Your task to perform on an android device: Open calendar and show me the third week of next month Image 0: 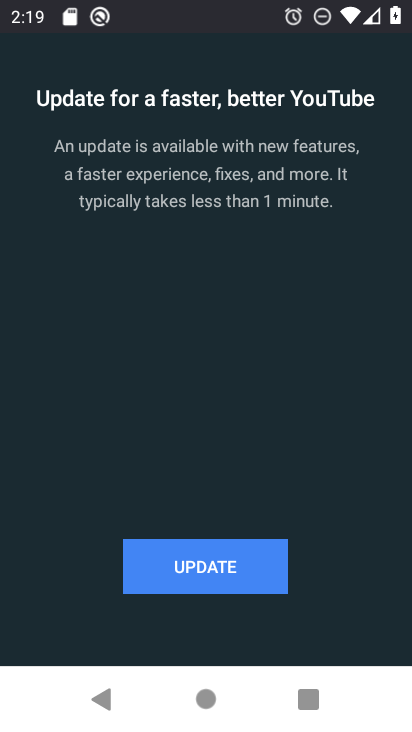
Step 0: press home button
Your task to perform on an android device: Open calendar and show me the third week of next month Image 1: 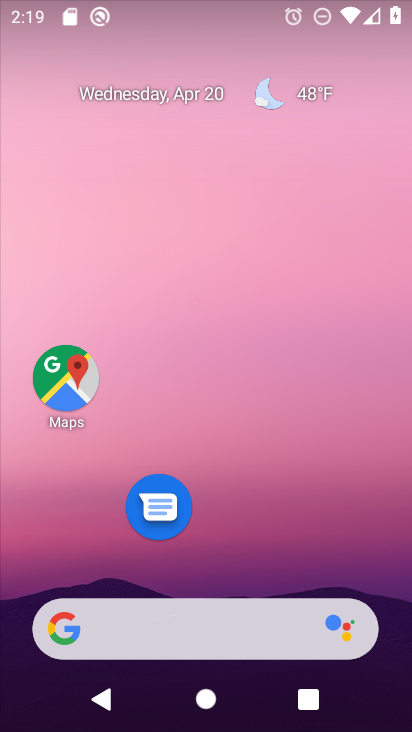
Step 1: drag from (209, 730) to (200, 87)
Your task to perform on an android device: Open calendar and show me the third week of next month Image 2: 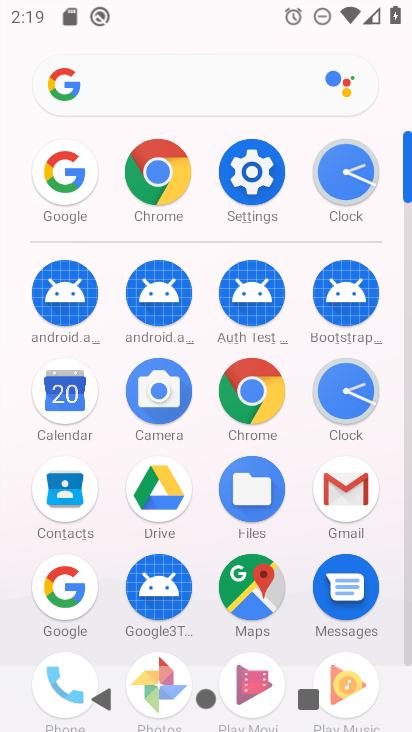
Step 2: click (67, 397)
Your task to perform on an android device: Open calendar and show me the third week of next month Image 3: 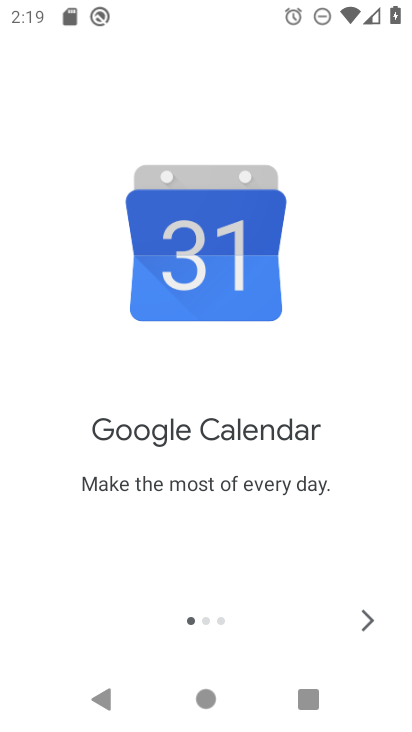
Step 3: click (369, 619)
Your task to perform on an android device: Open calendar and show me the third week of next month Image 4: 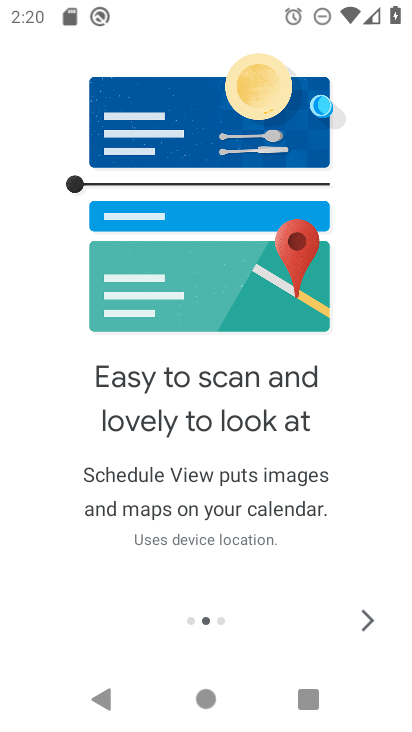
Step 4: click (369, 619)
Your task to perform on an android device: Open calendar and show me the third week of next month Image 5: 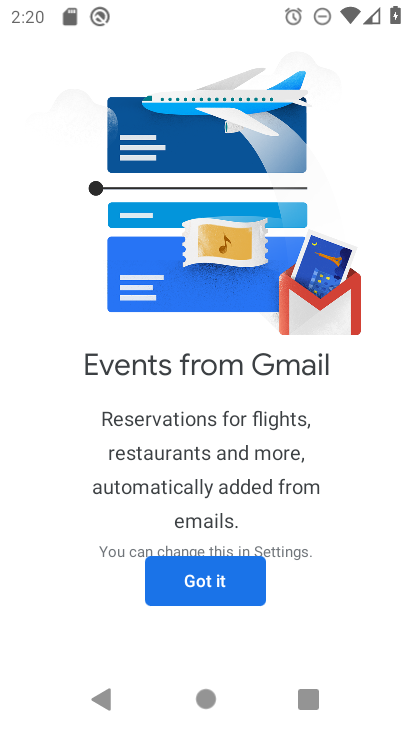
Step 5: click (206, 581)
Your task to perform on an android device: Open calendar and show me the third week of next month Image 6: 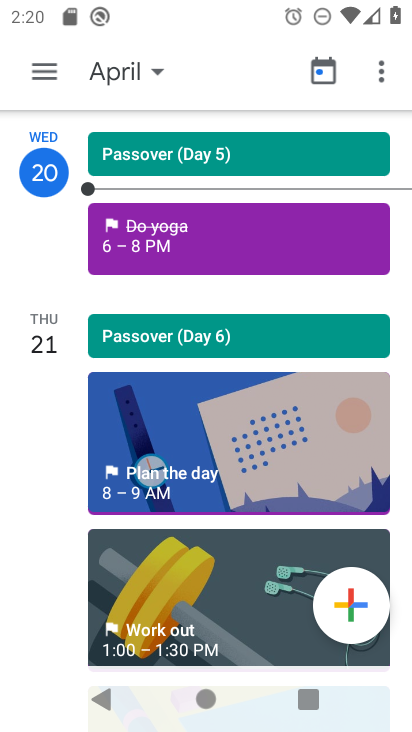
Step 6: click (108, 69)
Your task to perform on an android device: Open calendar and show me the third week of next month Image 7: 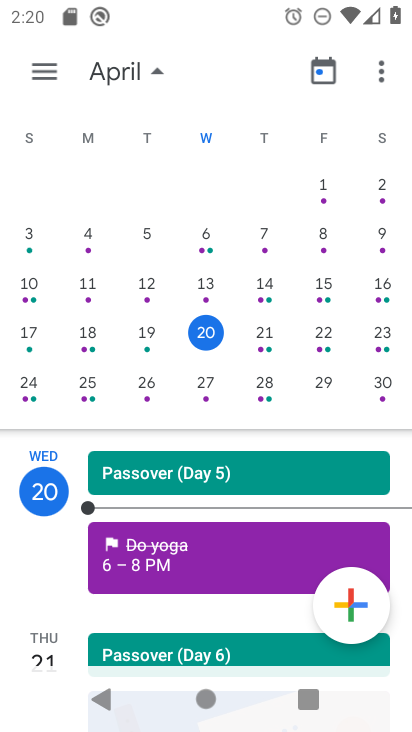
Step 7: drag from (352, 312) to (0, 257)
Your task to perform on an android device: Open calendar and show me the third week of next month Image 8: 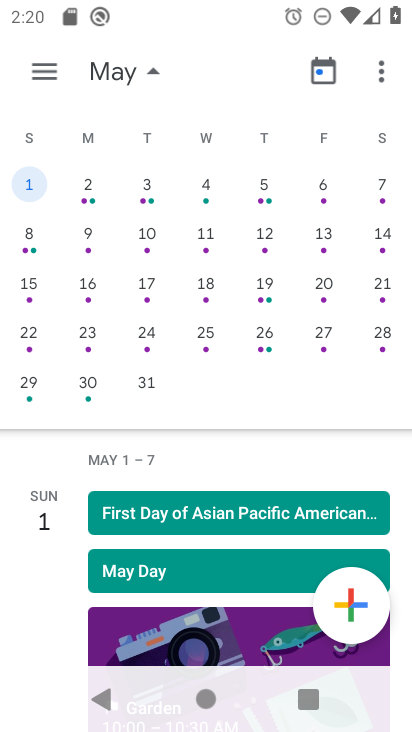
Step 8: click (82, 276)
Your task to perform on an android device: Open calendar and show me the third week of next month Image 9: 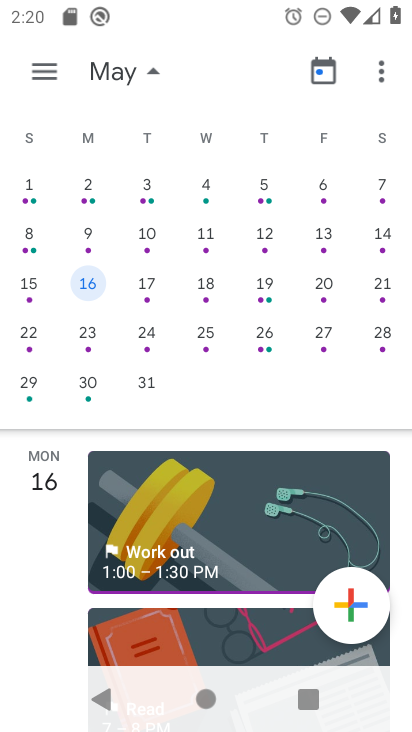
Step 9: task complete